Your task to perform on an android device: uninstall "Adobe Express: Graphic Design" Image 0: 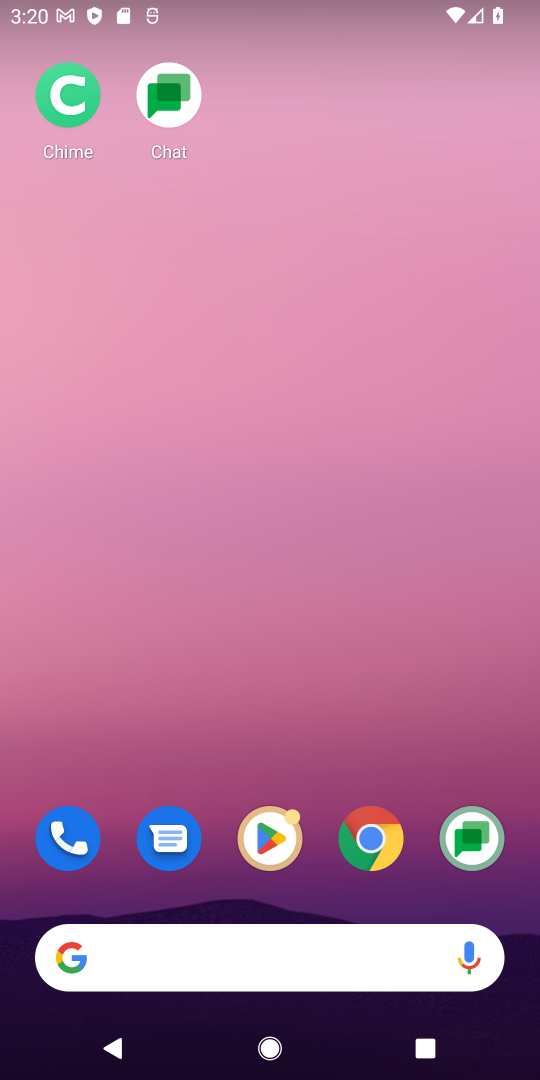
Step 0: click (281, 843)
Your task to perform on an android device: uninstall "Adobe Express: Graphic Design" Image 1: 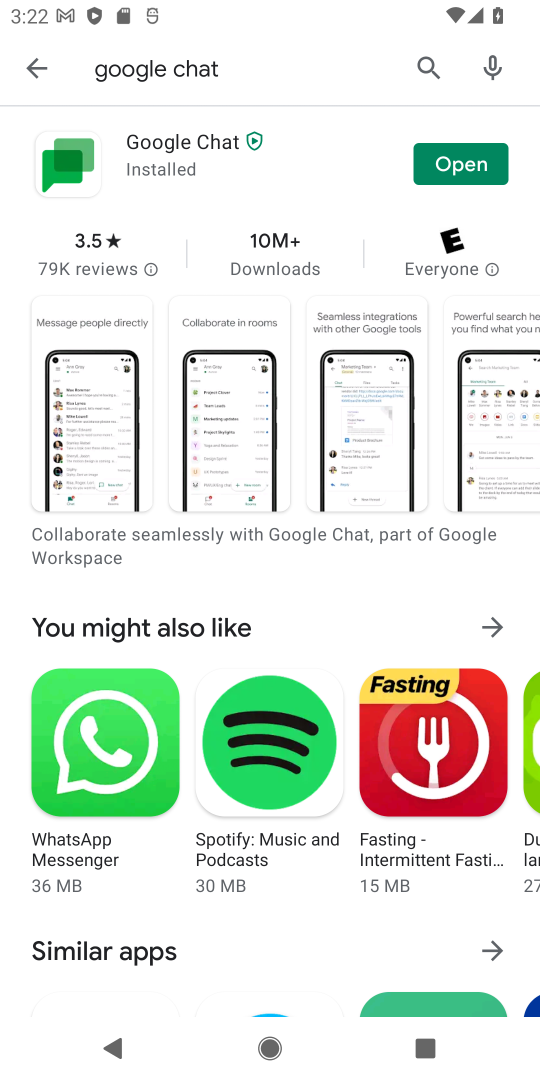
Step 1: click (231, 152)
Your task to perform on an android device: uninstall "Adobe Express: Graphic Design" Image 2: 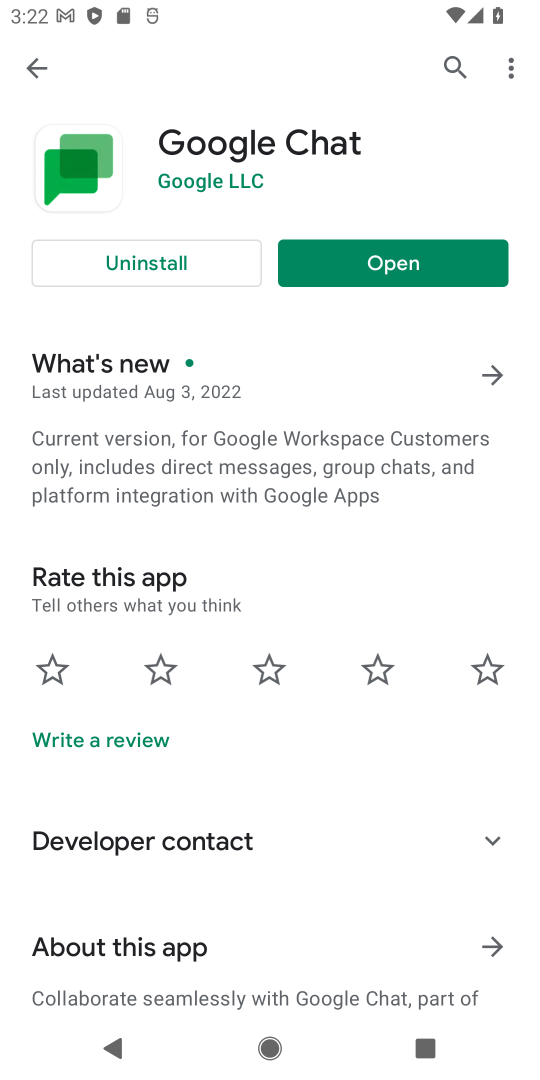
Step 2: click (443, 62)
Your task to perform on an android device: uninstall "Adobe Express: Graphic Design" Image 3: 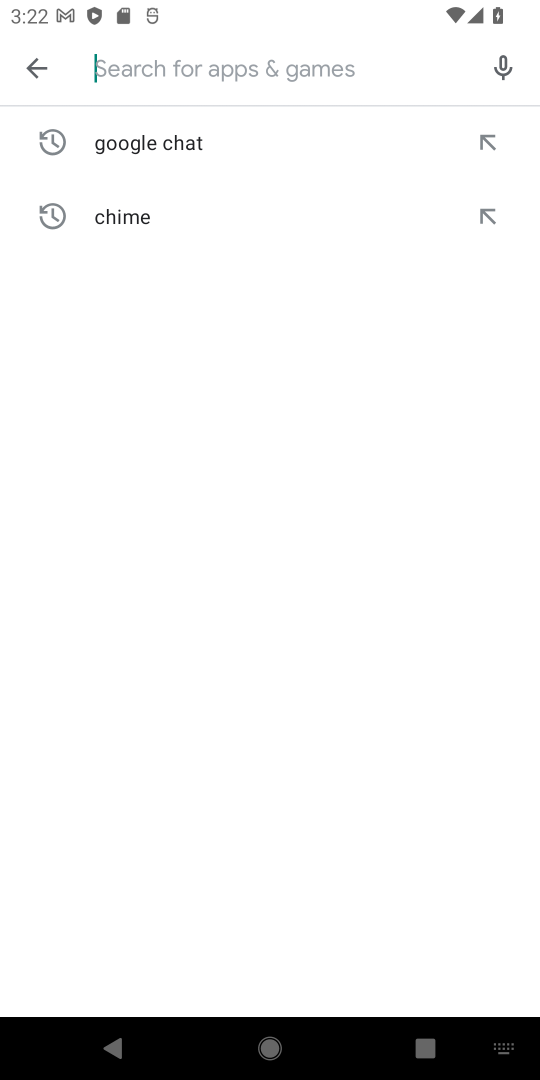
Step 3: click (188, 68)
Your task to perform on an android device: uninstall "Adobe Express: Graphic Design" Image 4: 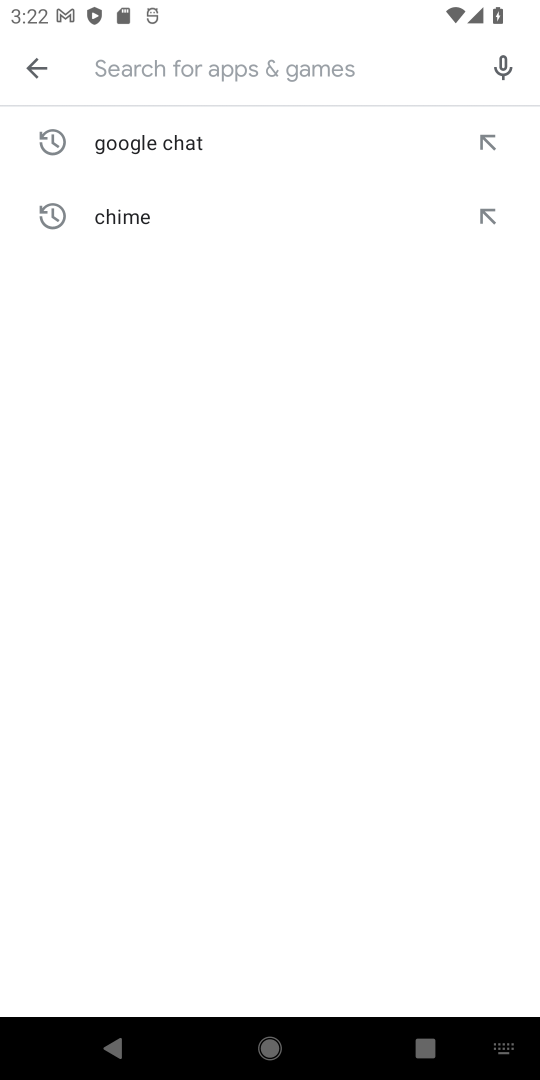
Step 4: type "Adobe Express"
Your task to perform on an android device: uninstall "Adobe Express: Graphic Design" Image 5: 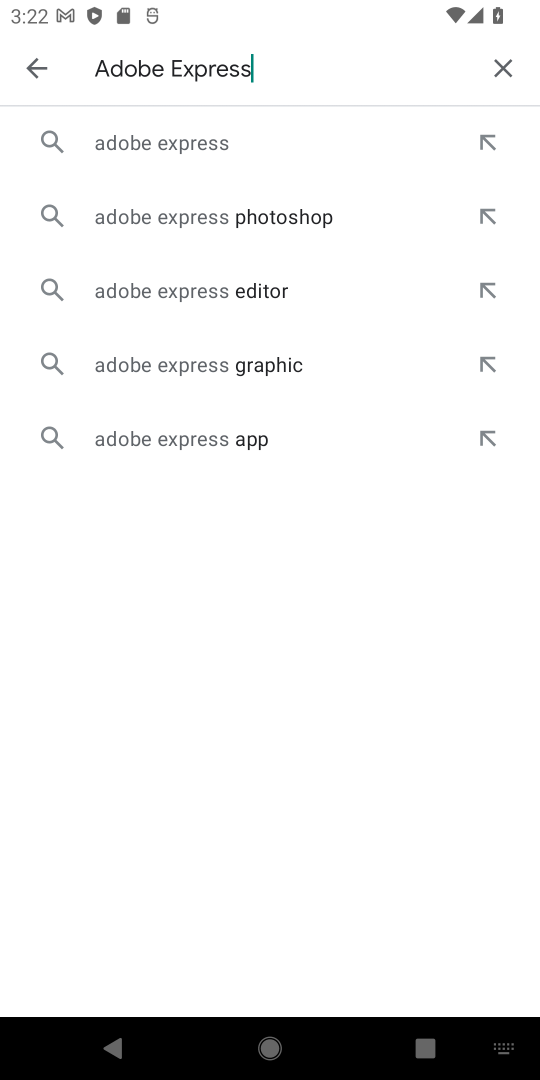
Step 5: click (187, 132)
Your task to perform on an android device: uninstall "Adobe Express: Graphic Design" Image 6: 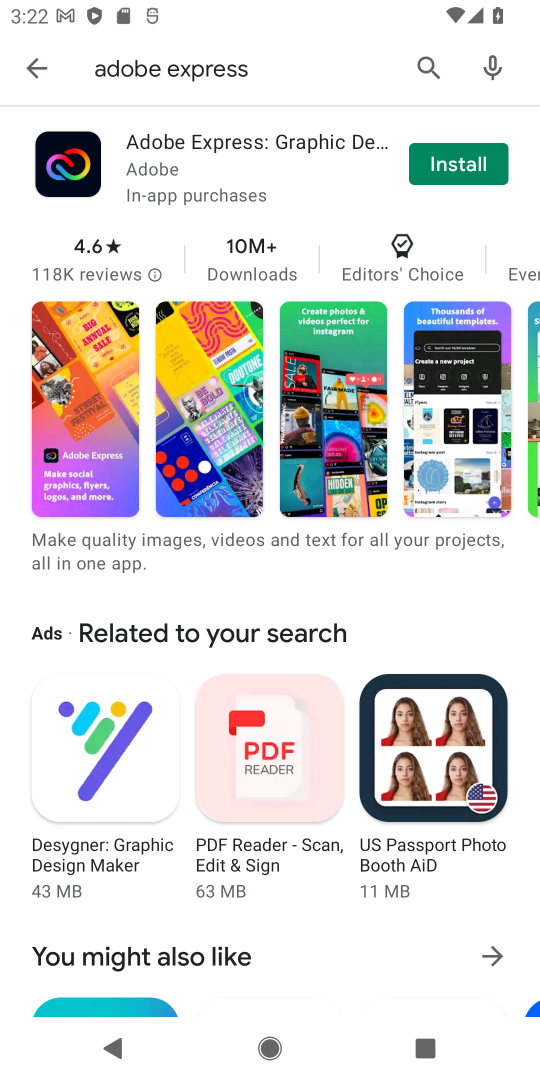
Step 6: click (233, 159)
Your task to perform on an android device: uninstall "Adobe Express: Graphic Design" Image 7: 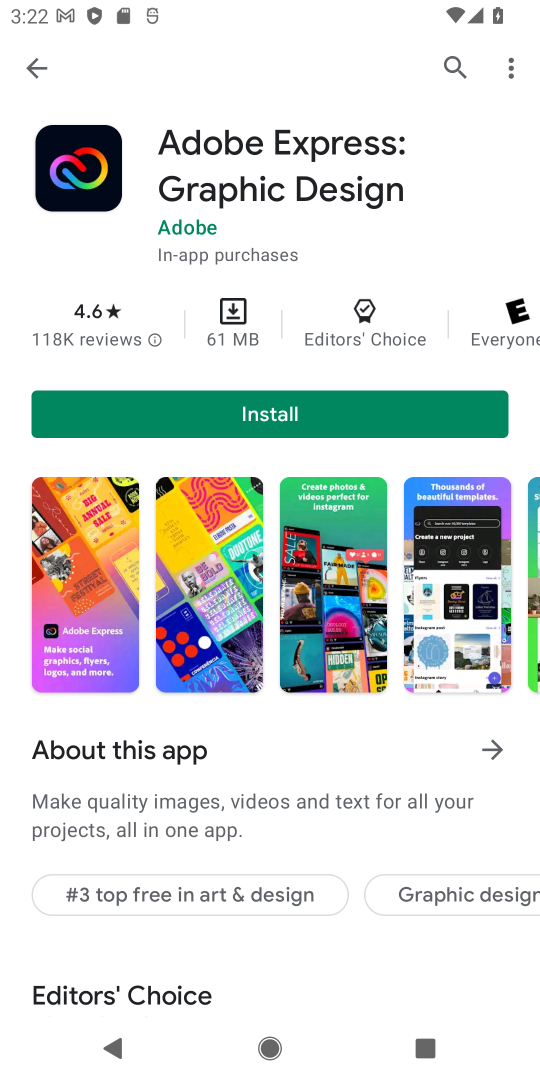
Step 7: task complete